Your task to perform on an android device: add a contact in the contacts app Image 0: 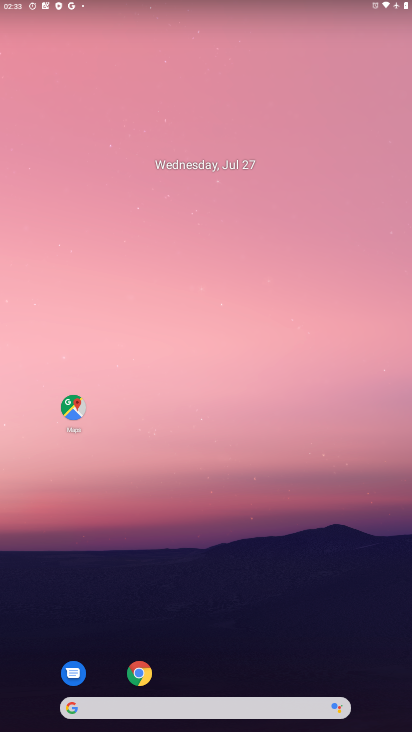
Step 0: drag from (254, 679) to (277, 14)
Your task to perform on an android device: add a contact in the contacts app Image 1: 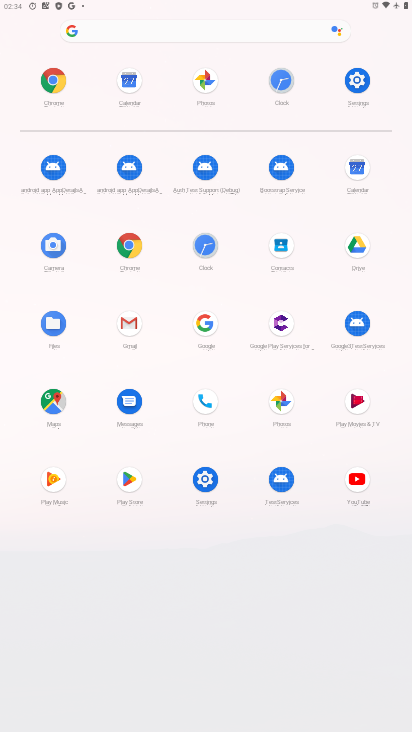
Step 1: click (275, 245)
Your task to perform on an android device: add a contact in the contacts app Image 2: 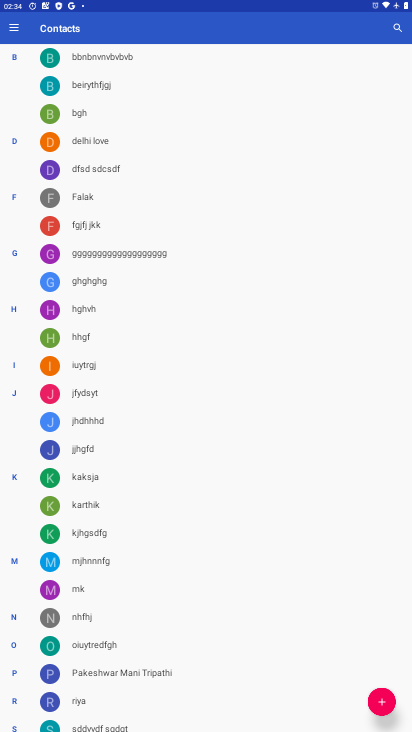
Step 2: click (385, 702)
Your task to perform on an android device: add a contact in the contacts app Image 3: 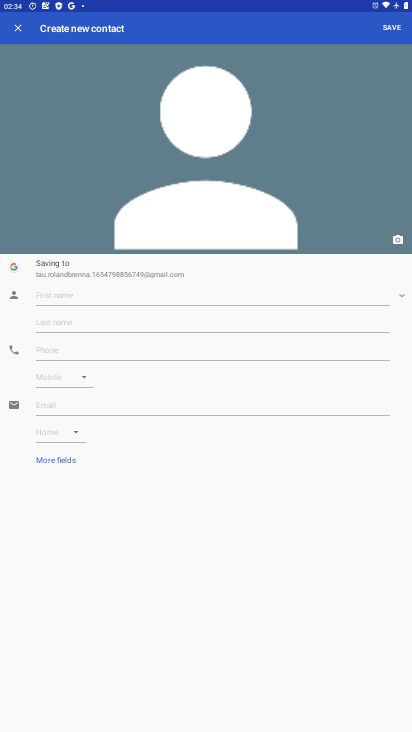
Step 3: click (76, 297)
Your task to perform on an android device: add a contact in the contacts app Image 4: 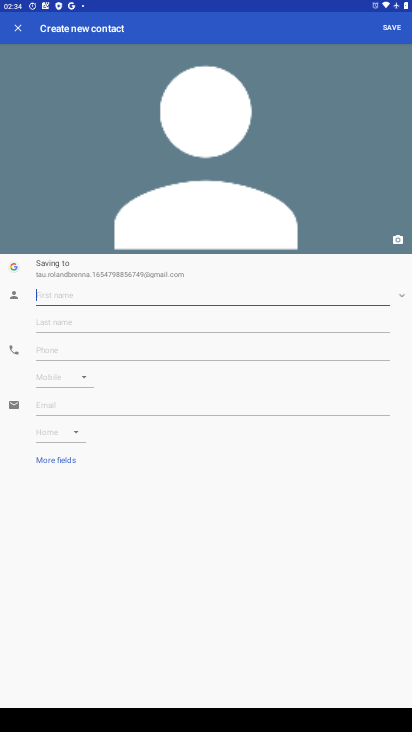
Step 4: type "hygytfyhy"
Your task to perform on an android device: add a contact in the contacts app Image 5: 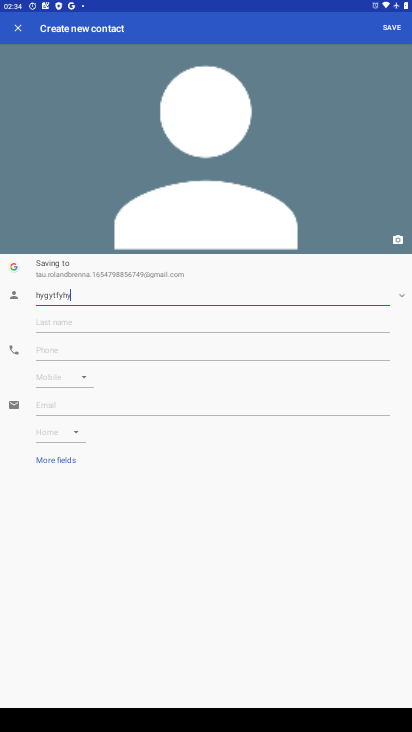
Step 5: click (105, 336)
Your task to perform on an android device: add a contact in the contacts app Image 6: 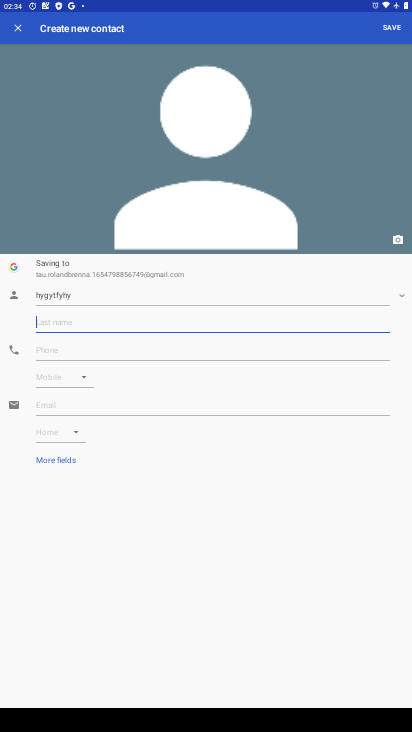
Step 6: click (167, 343)
Your task to perform on an android device: add a contact in the contacts app Image 7: 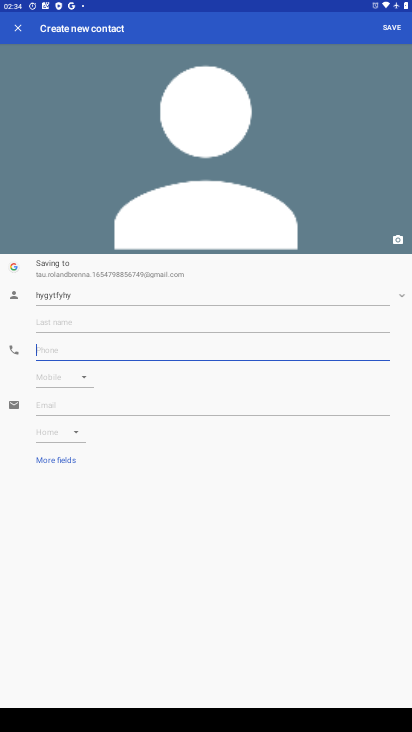
Step 7: type "9877654321"
Your task to perform on an android device: add a contact in the contacts app Image 8: 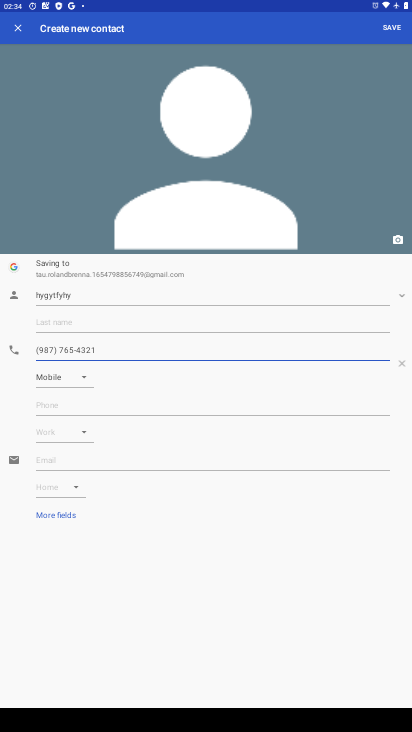
Step 8: click (390, 34)
Your task to perform on an android device: add a contact in the contacts app Image 9: 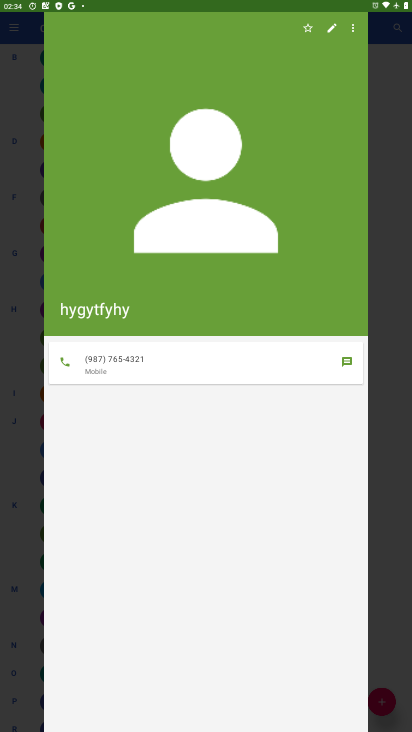
Step 9: task complete